Your task to perform on an android device: remove spam from my inbox in the gmail app Image 0: 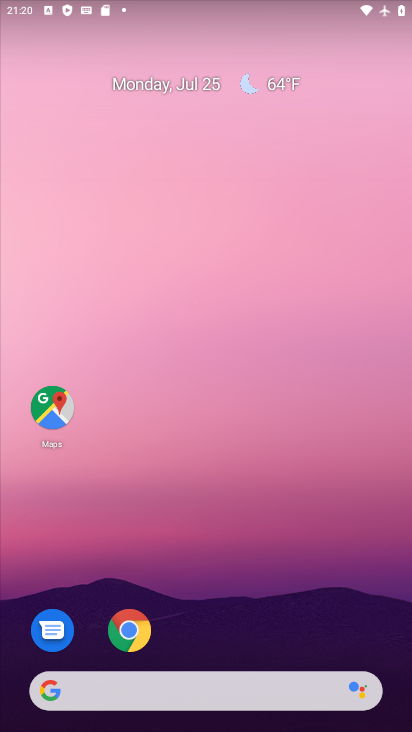
Step 0: drag from (403, 646) to (333, 68)
Your task to perform on an android device: remove spam from my inbox in the gmail app Image 1: 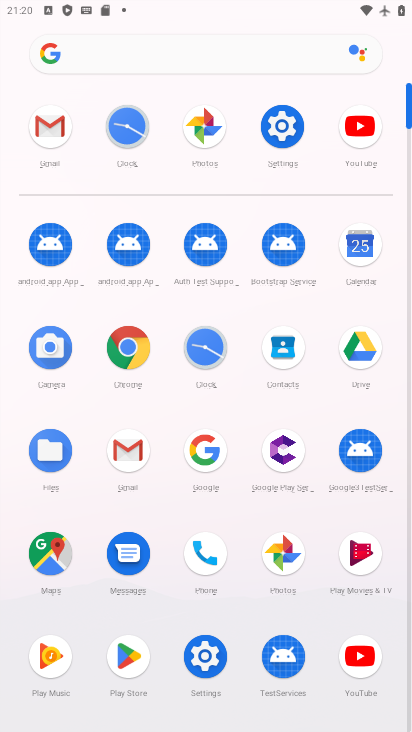
Step 1: click (131, 449)
Your task to perform on an android device: remove spam from my inbox in the gmail app Image 2: 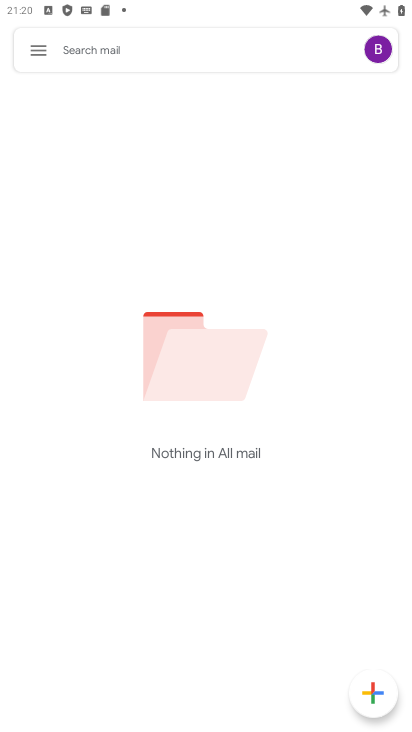
Step 2: click (35, 47)
Your task to perform on an android device: remove spam from my inbox in the gmail app Image 3: 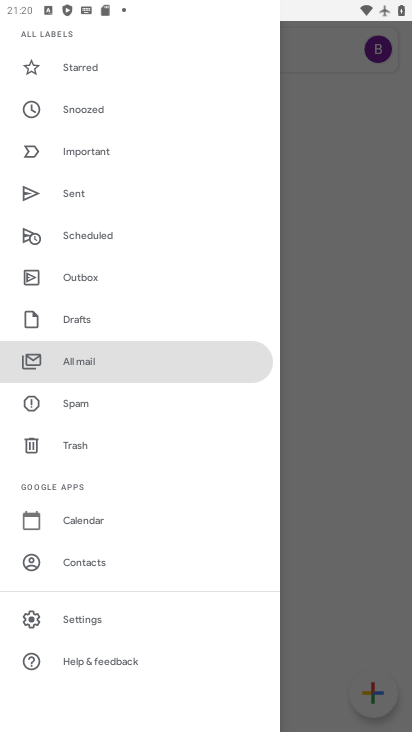
Step 3: click (69, 404)
Your task to perform on an android device: remove spam from my inbox in the gmail app Image 4: 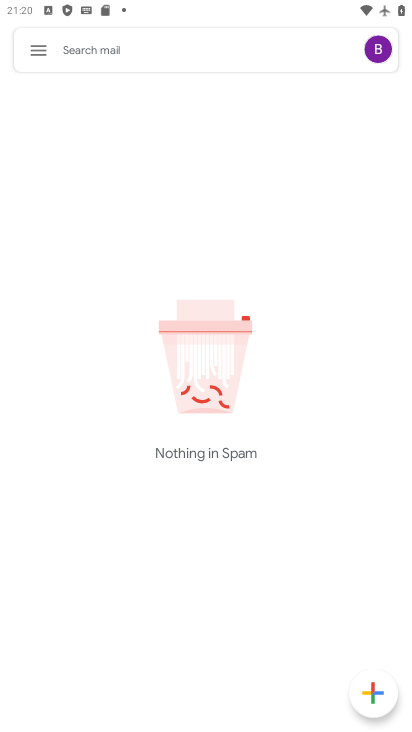
Step 4: task complete